Your task to perform on an android device: Go to Maps Image 0: 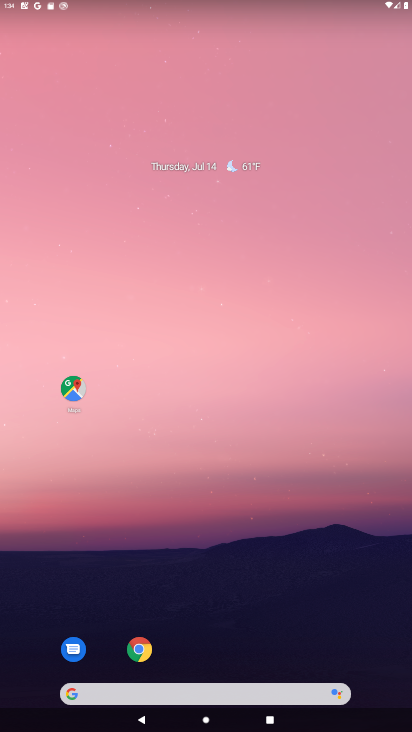
Step 0: drag from (230, 697) to (187, 32)
Your task to perform on an android device: Go to Maps Image 1: 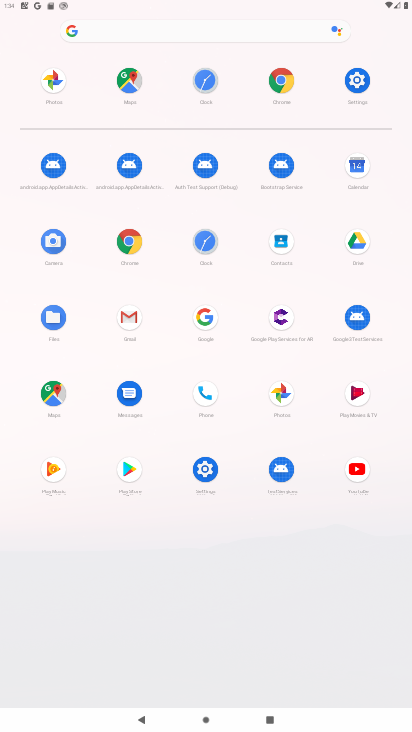
Step 1: click (62, 396)
Your task to perform on an android device: Go to Maps Image 2: 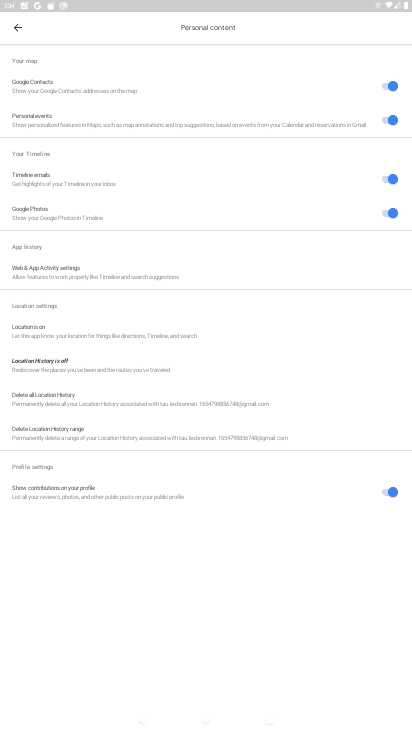
Step 2: task complete